Your task to perform on an android device: open chrome and create a bookmark for the current page Image 0: 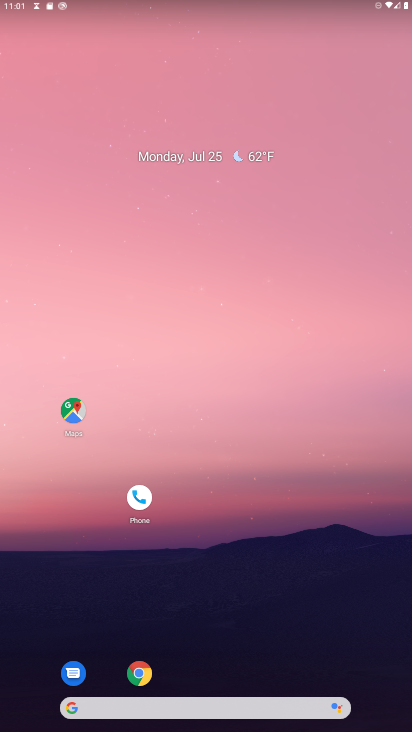
Step 0: press home button
Your task to perform on an android device: open chrome and create a bookmark for the current page Image 1: 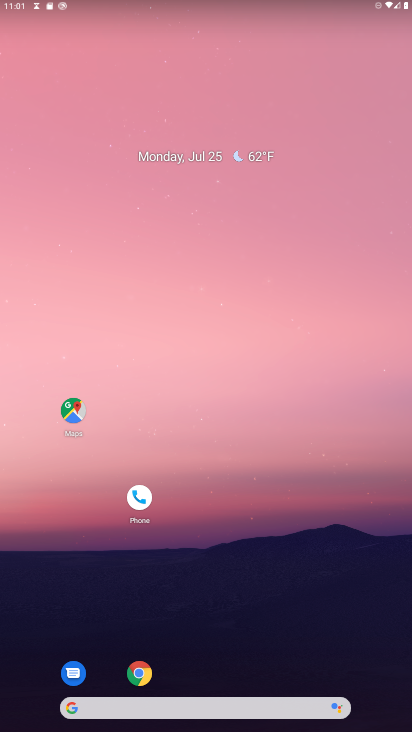
Step 1: click (136, 673)
Your task to perform on an android device: open chrome and create a bookmark for the current page Image 2: 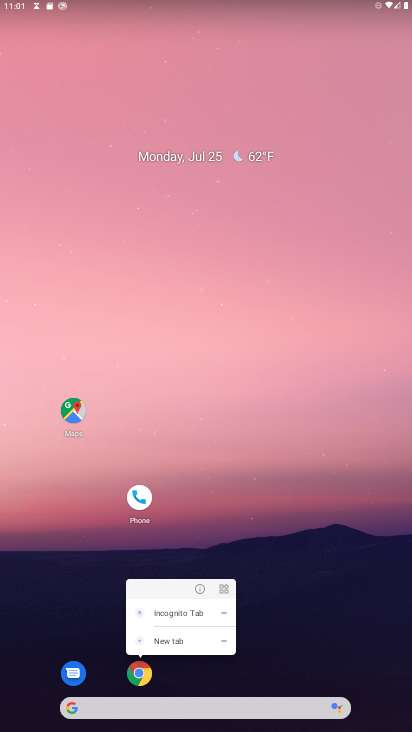
Step 2: click (134, 674)
Your task to perform on an android device: open chrome and create a bookmark for the current page Image 3: 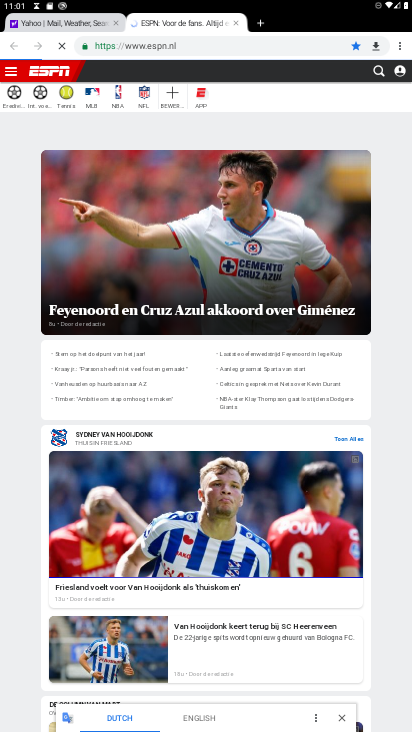
Step 3: task complete